Your task to perform on an android device: move a message to another label in the gmail app Image 0: 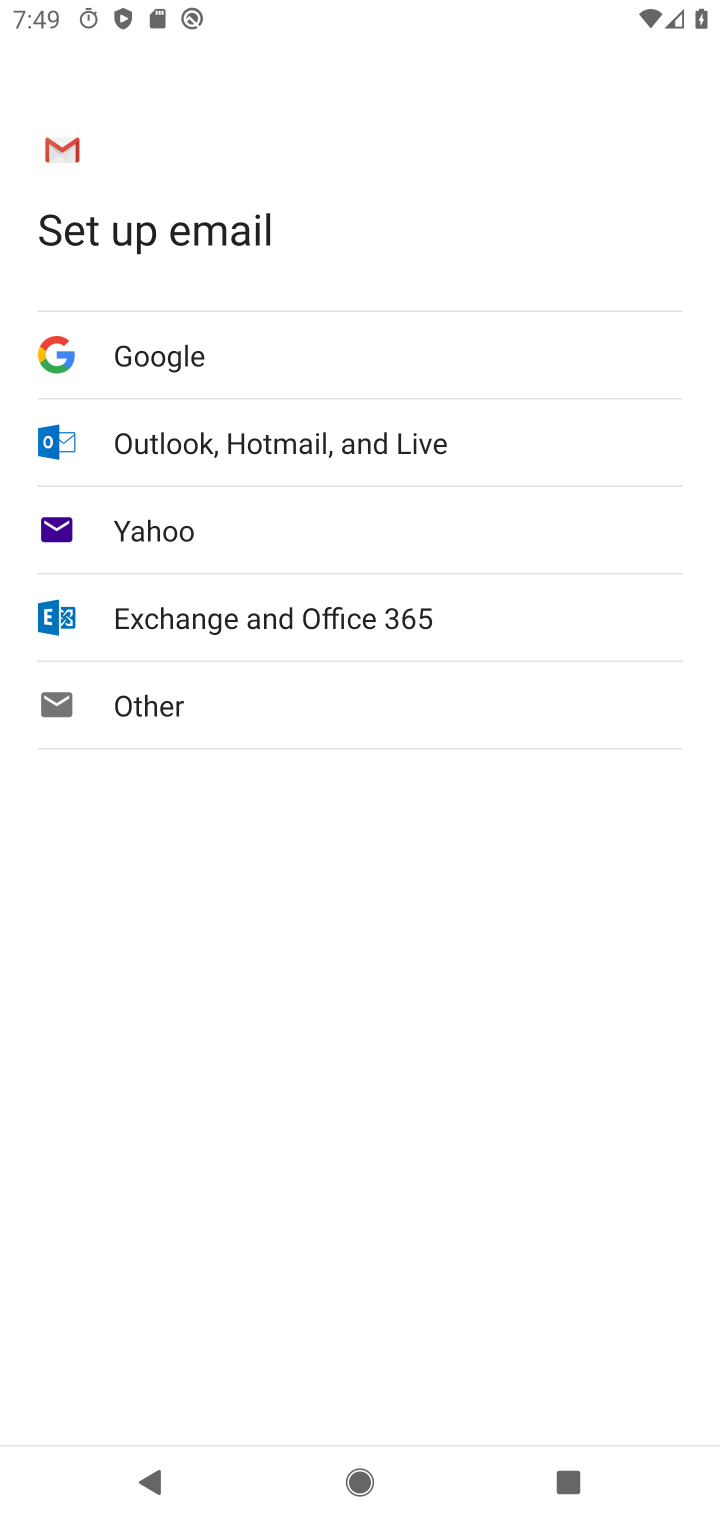
Step 0: drag from (449, 772) to (435, 596)
Your task to perform on an android device: move a message to another label in the gmail app Image 1: 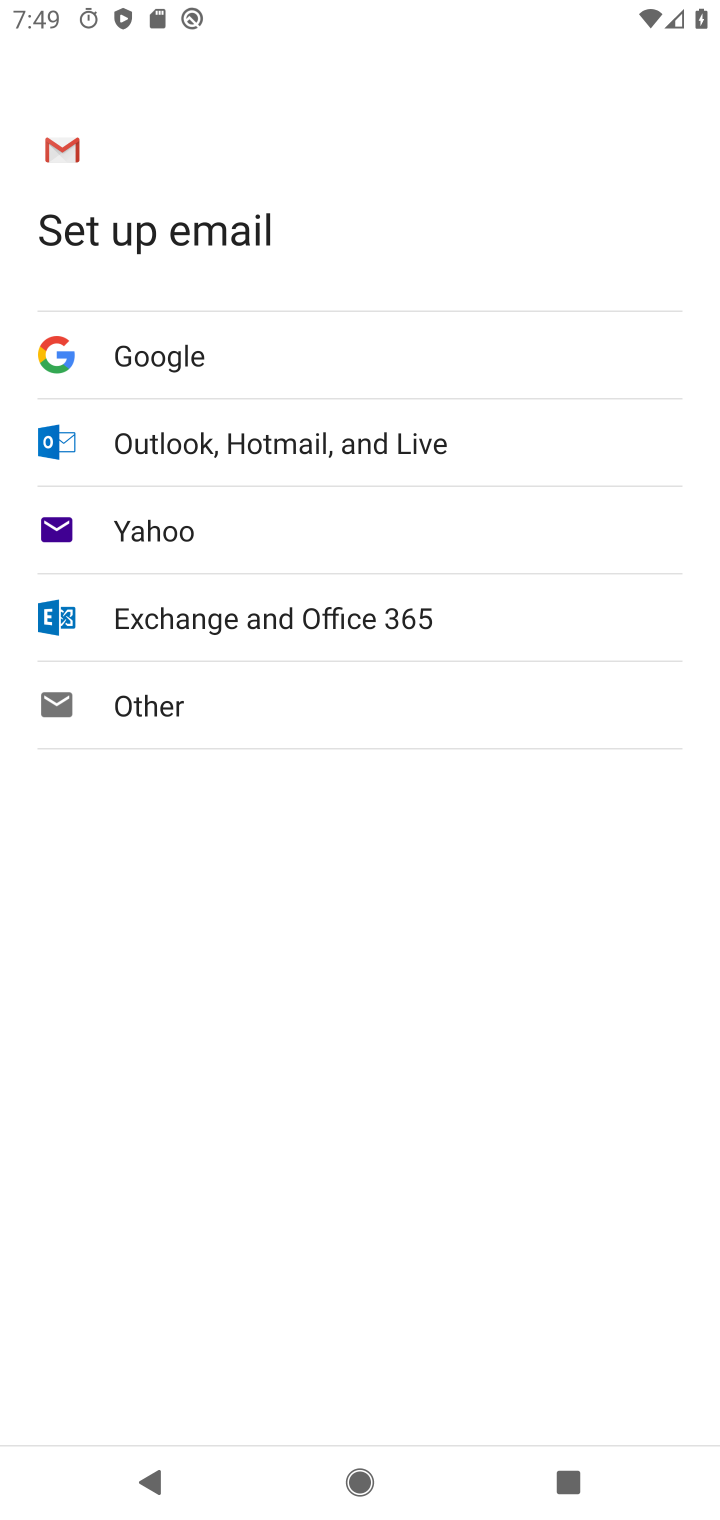
Step 1: drag from (244, 340) to (428, 1240)
Your task to perform on an android device: move a message to another label in the gmail app Image 2: 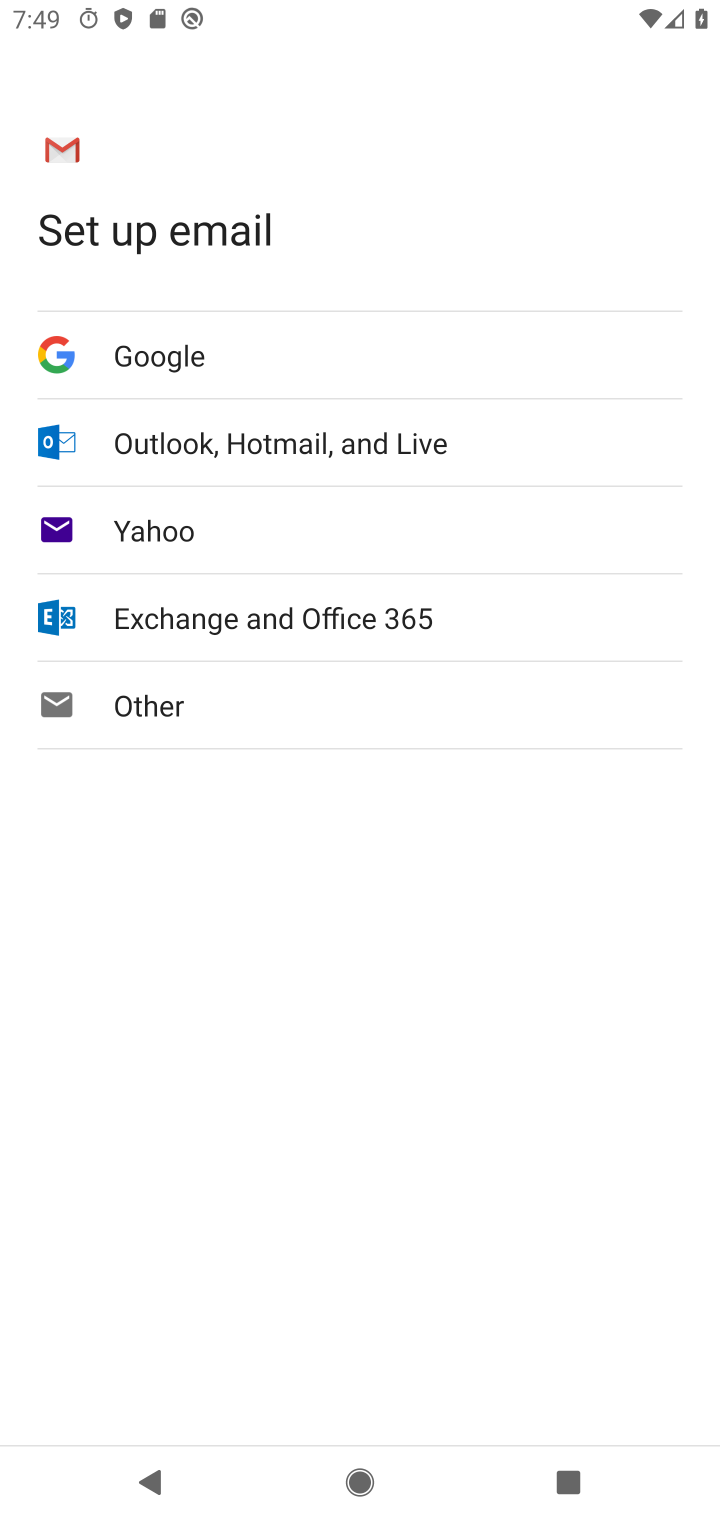
Step 2: press home button
Your task to perform on an android device: move a message to another label in the gmail app Image 3: 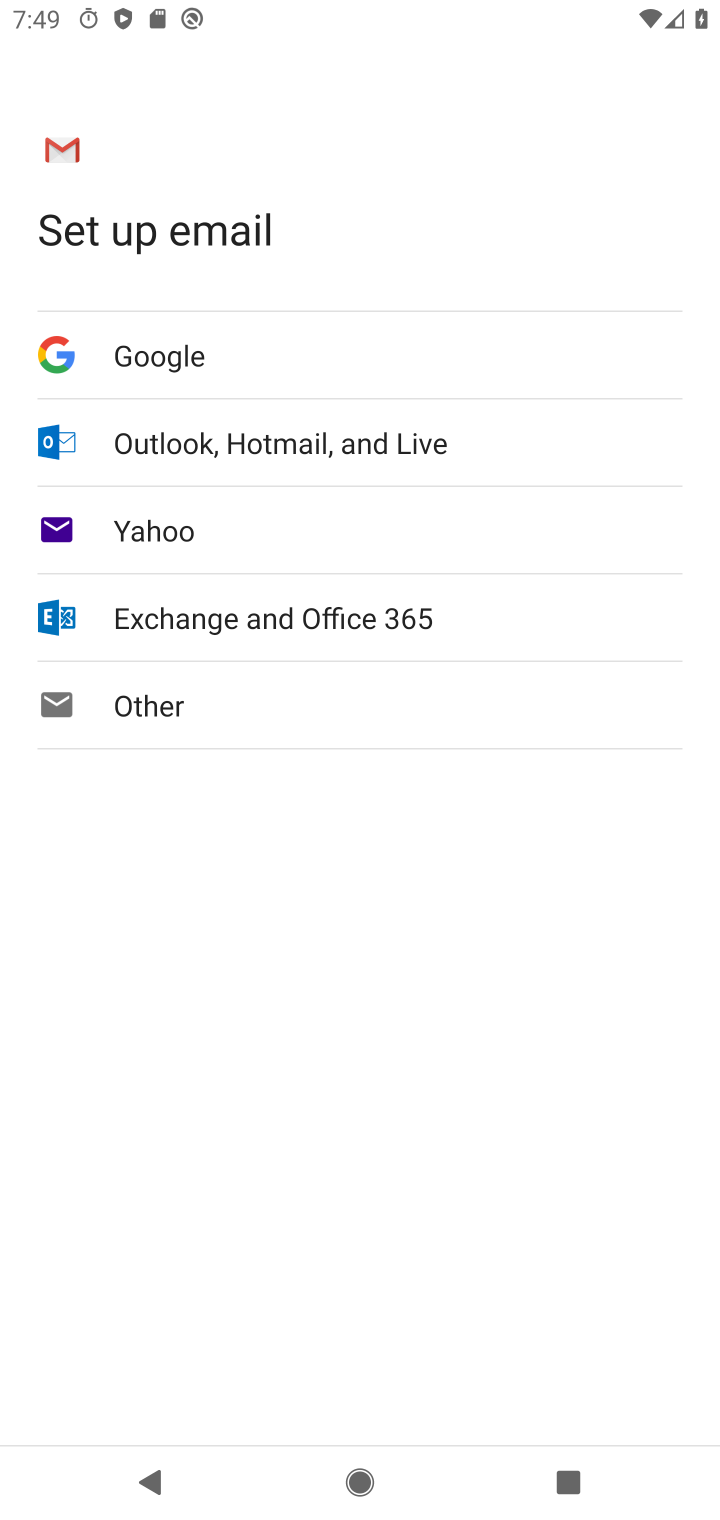
Step 3: drag from (247, 939) to (372, 446)
Your task to perform on an android device: move a message to another label in the gmail app Image 4: 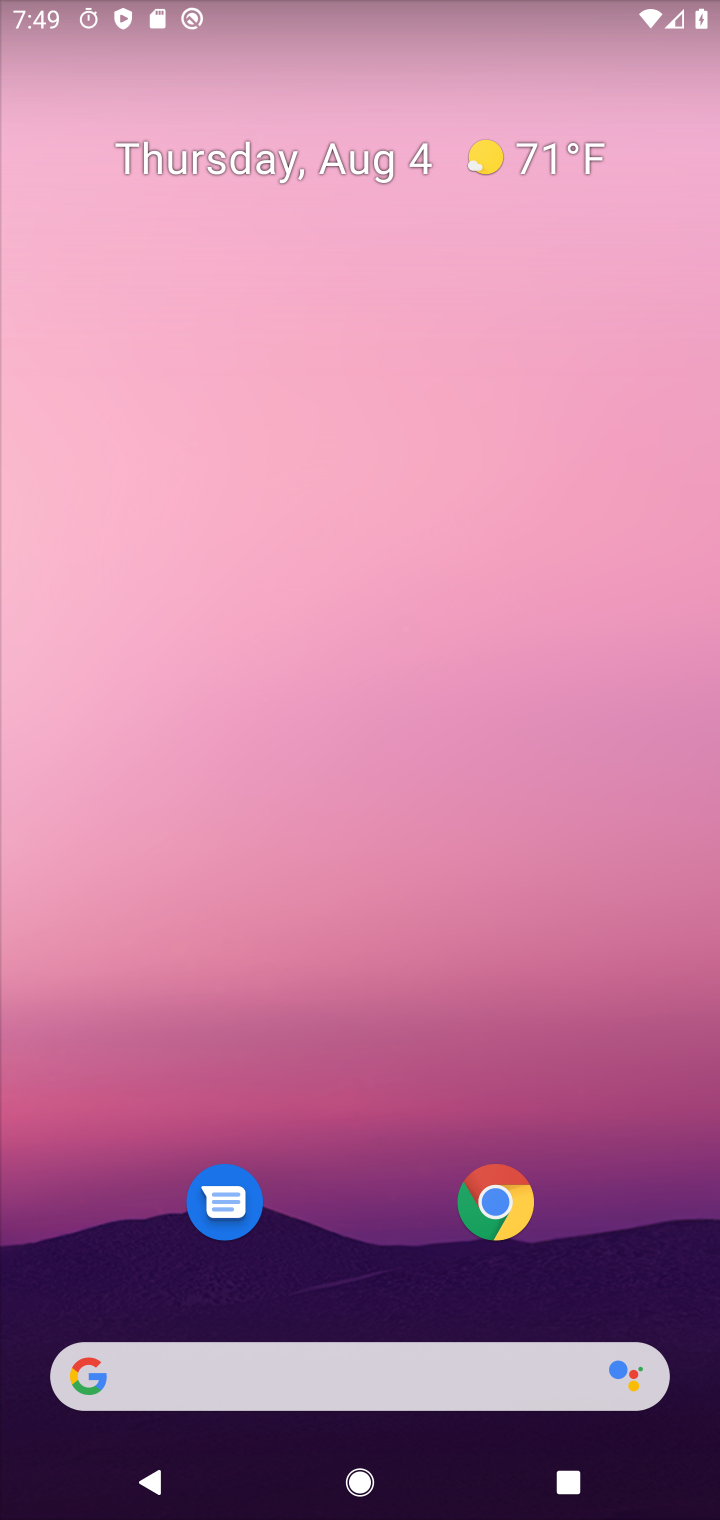
Step 4: drag from (381, 1160) to (466, 185)
Your task to perform on an android device: move a message to another label in the gmail app Image 5: 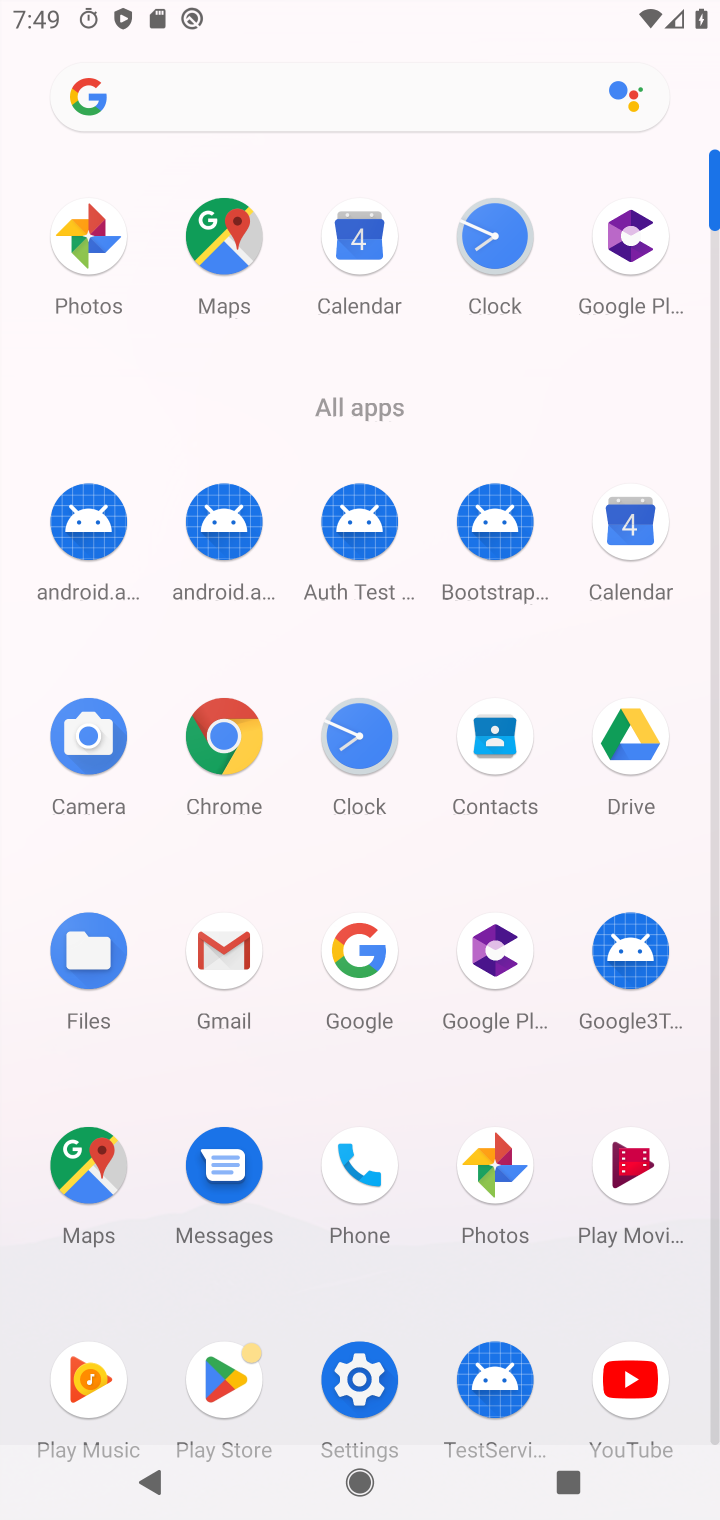
Step 5: click (226, 956)
Your task to perform on an android device: move a message to another label in the gmail app Image 6: 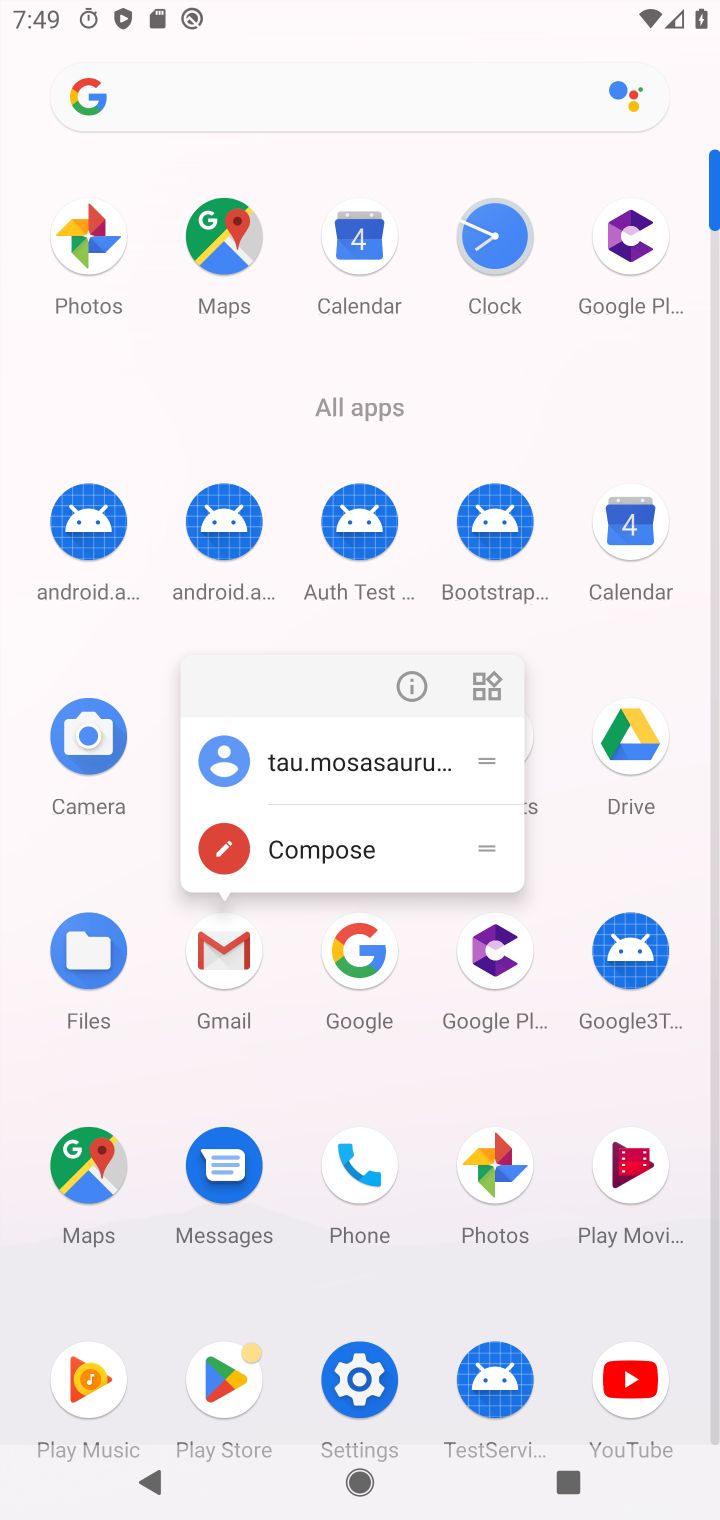
Step 6: click (417, 678)
Your task to perform on an android device: move a message to another label in the gmail app Image 7: 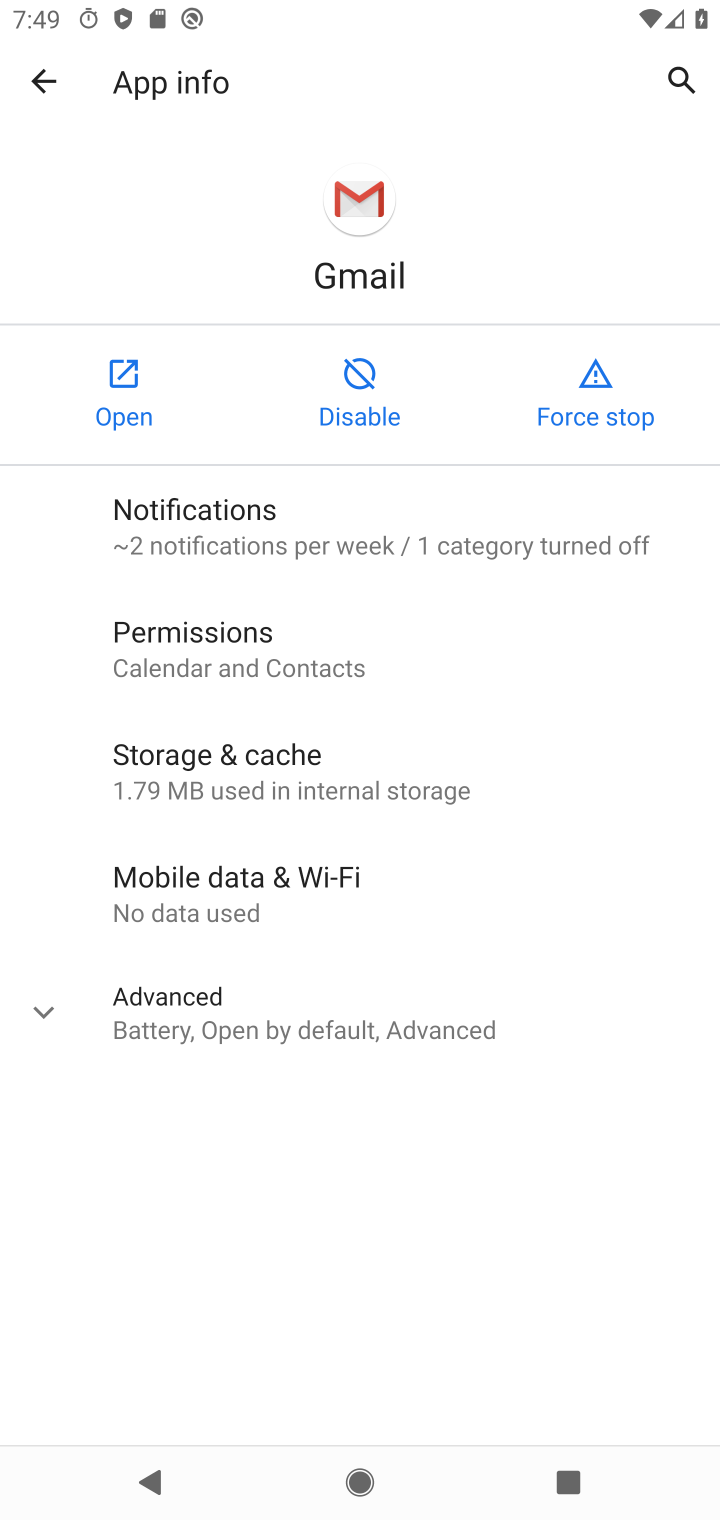
Step 7: click (99, 375)
Your task to perform on an android device: move a message to another label in the gmail app Image 8: 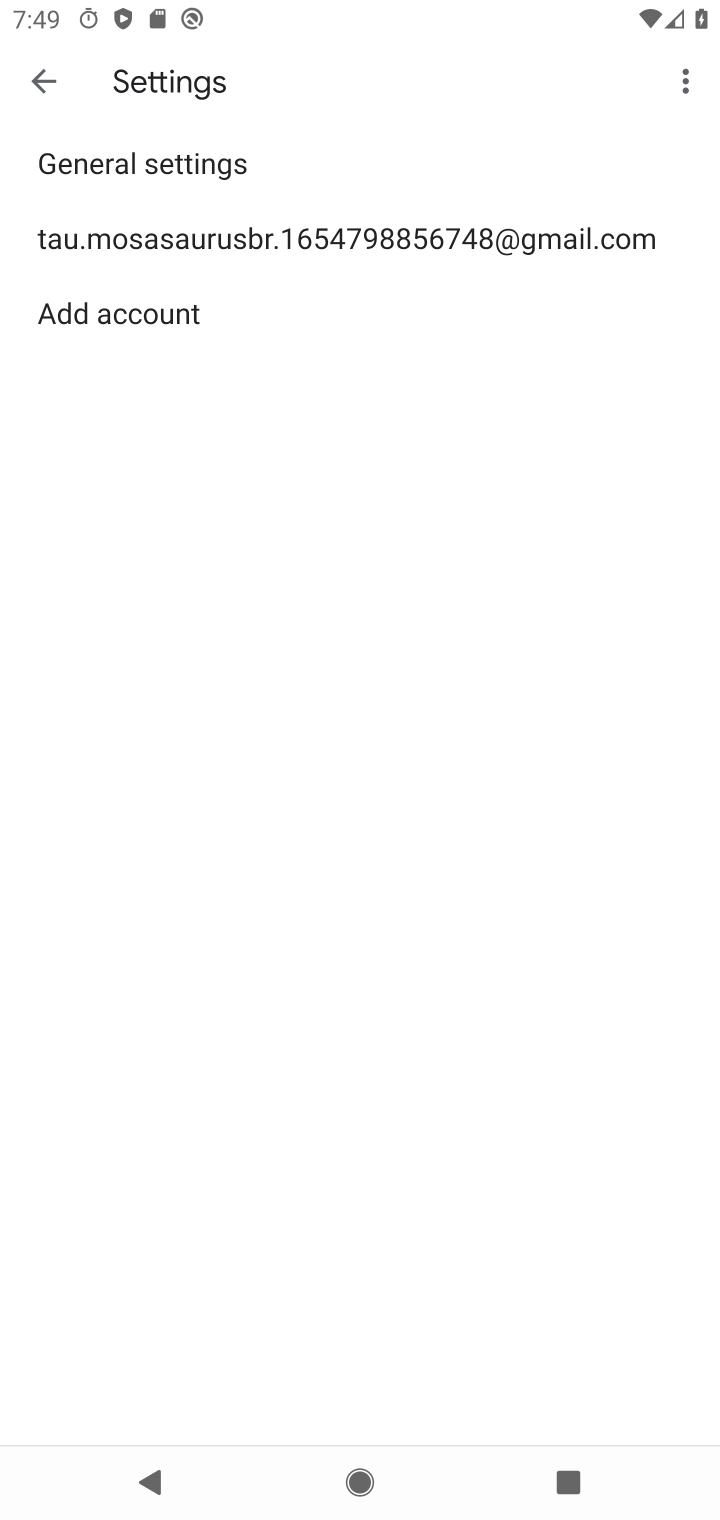
Step 8: click (461, 231)
Your task to perform on an android device: move a message to another label in the gmail app Image 9: 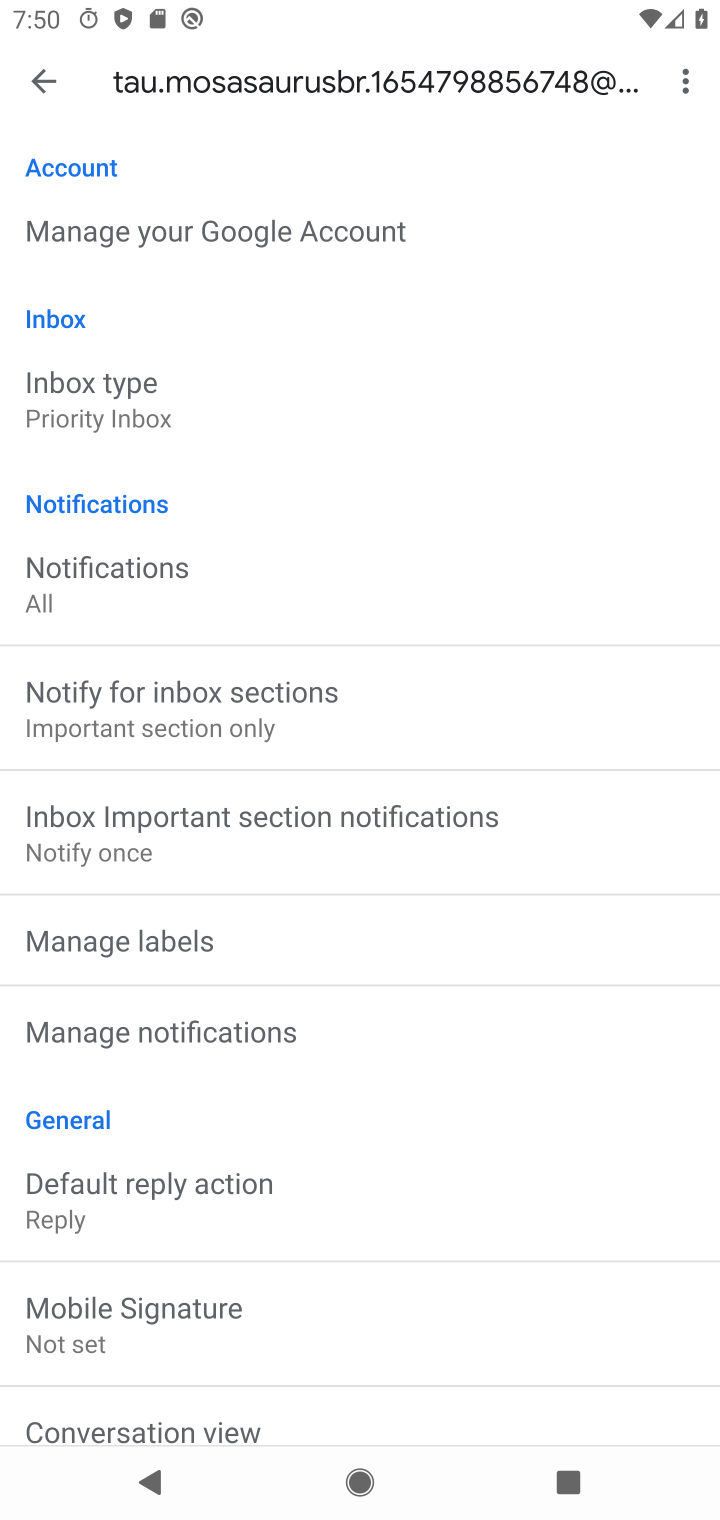
Step 9: click (37, 79)
Your task to perform on an android device: move a message to another label in the gmail app Image 10: 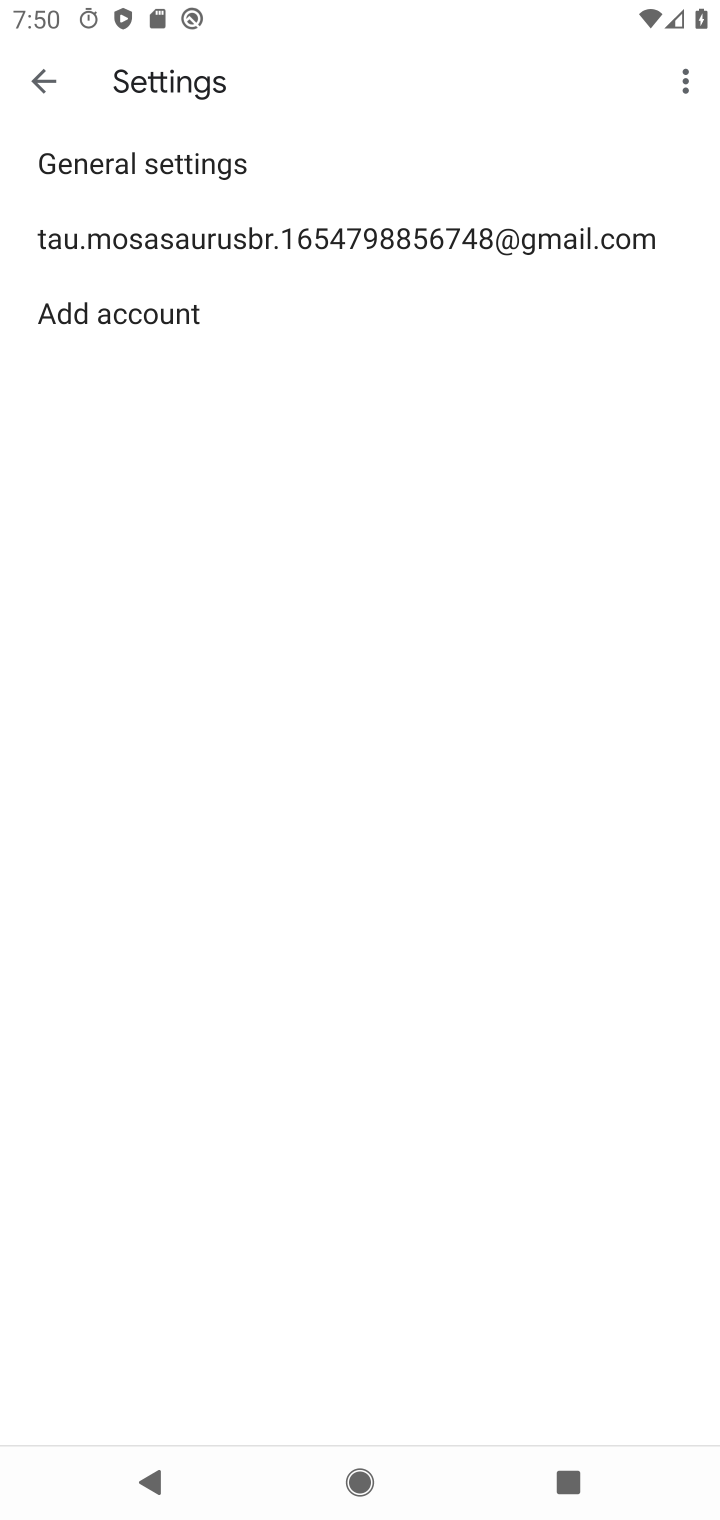
Step 10: click (49, 83)
Your task to perform on an android device: move a message to another label in the gmail app Image 11: 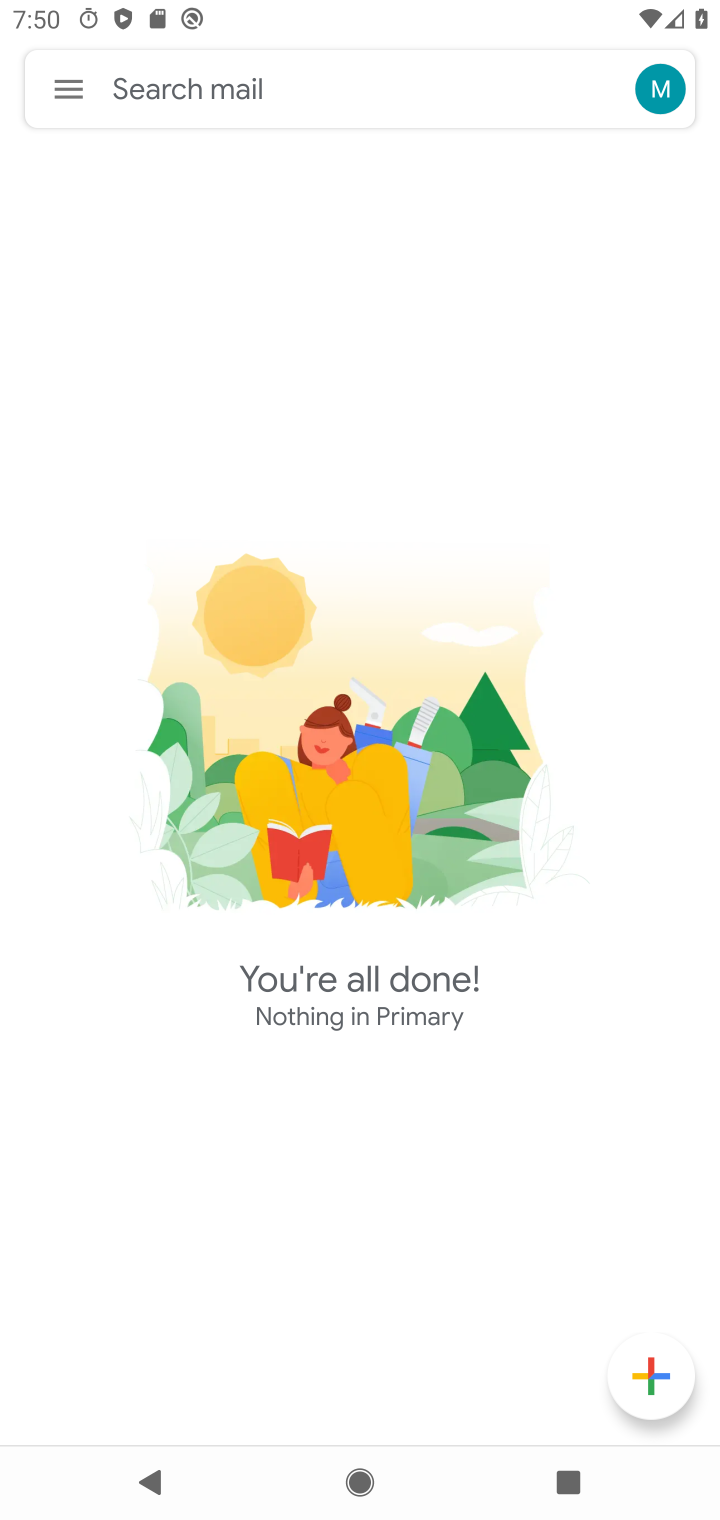
Step 11: drag from (319, 732) to (378, 308)
Your task to perform on an android device: move a message to another label in the gmail app Image 12: 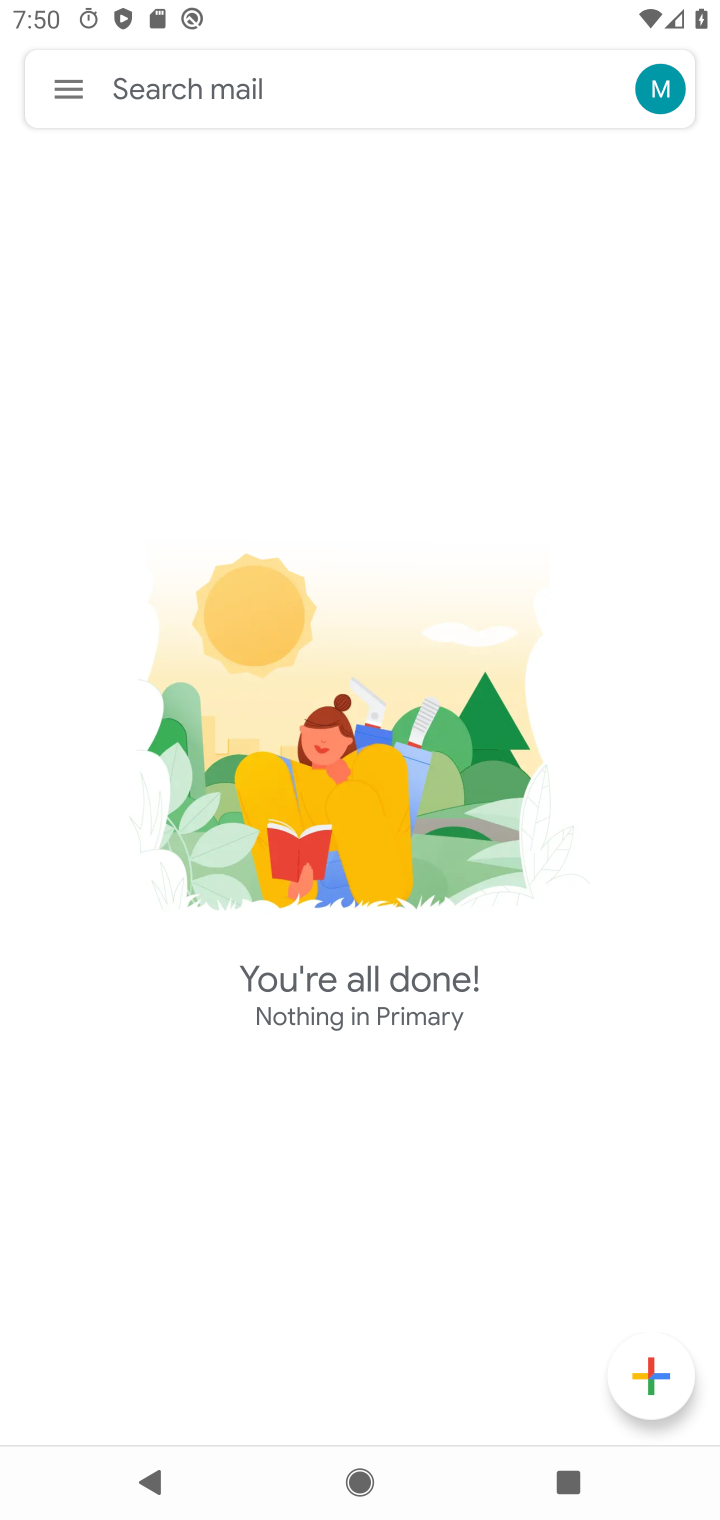
Step 12: drag from (428, 321) to (354, 851)
Your task to perform on an android device: move a message to another label in the gmail app Image 13: 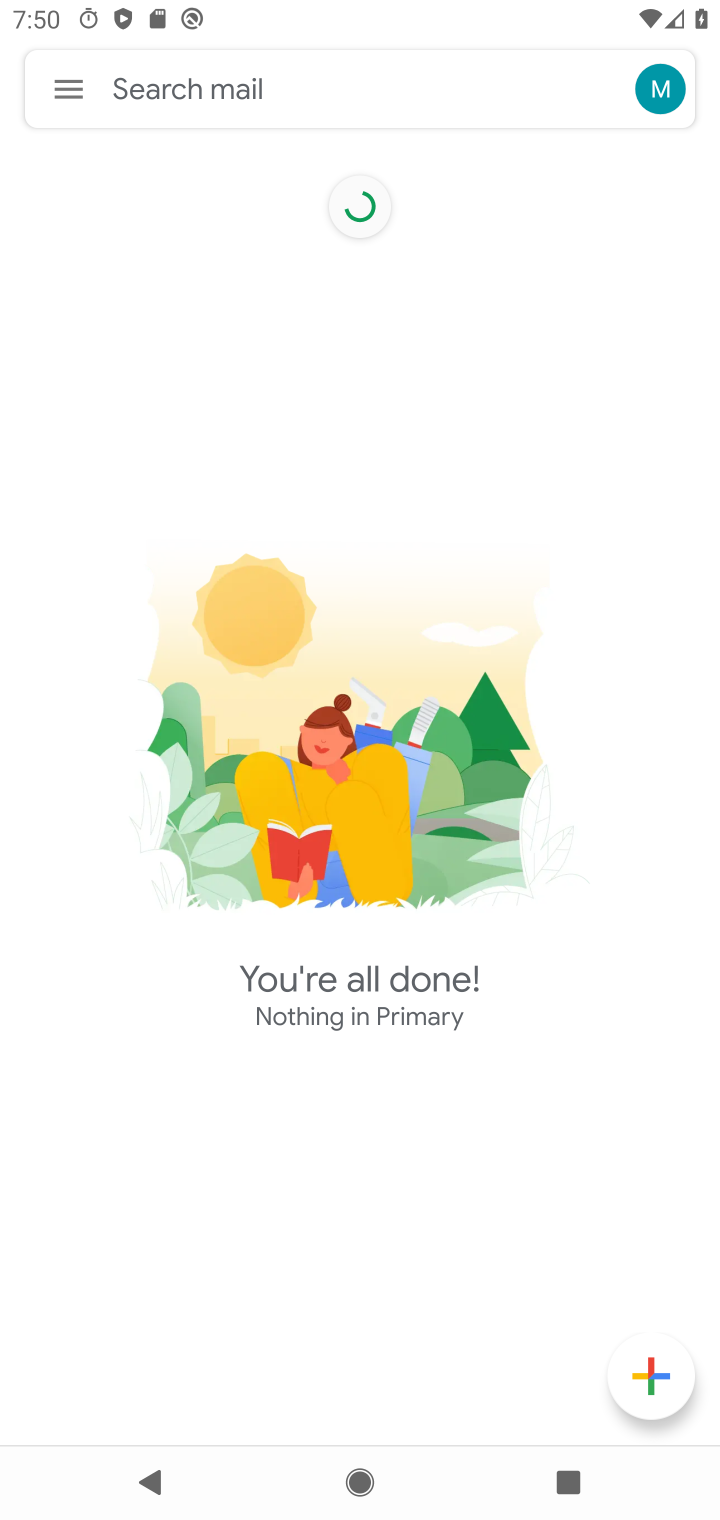
Step 13: click (54, 78)
Your task to perform on an android device: move a message to another label in the gmail app Image 14: 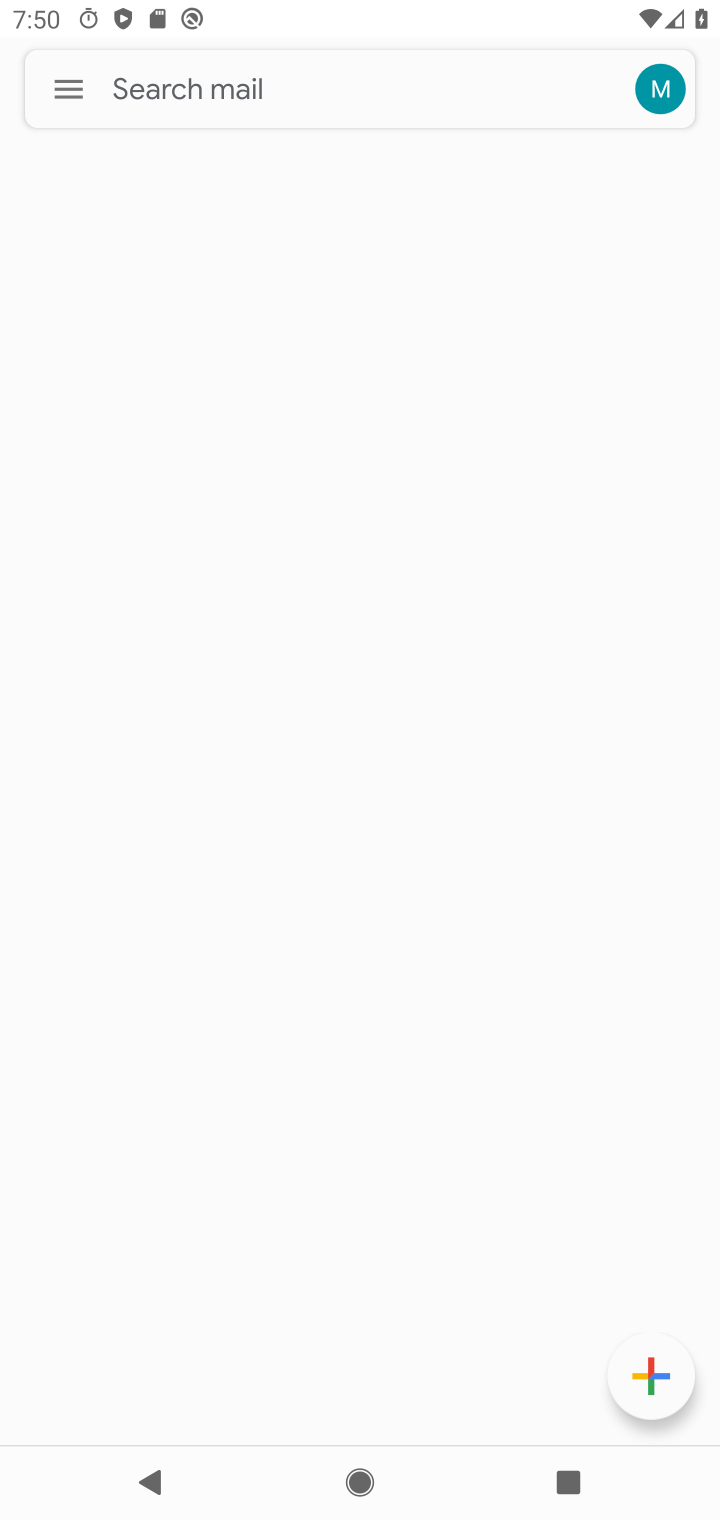
Step 14: click (140, 181)
Your task to perform on an android device: move a message to another label in the gmail app Image 15: 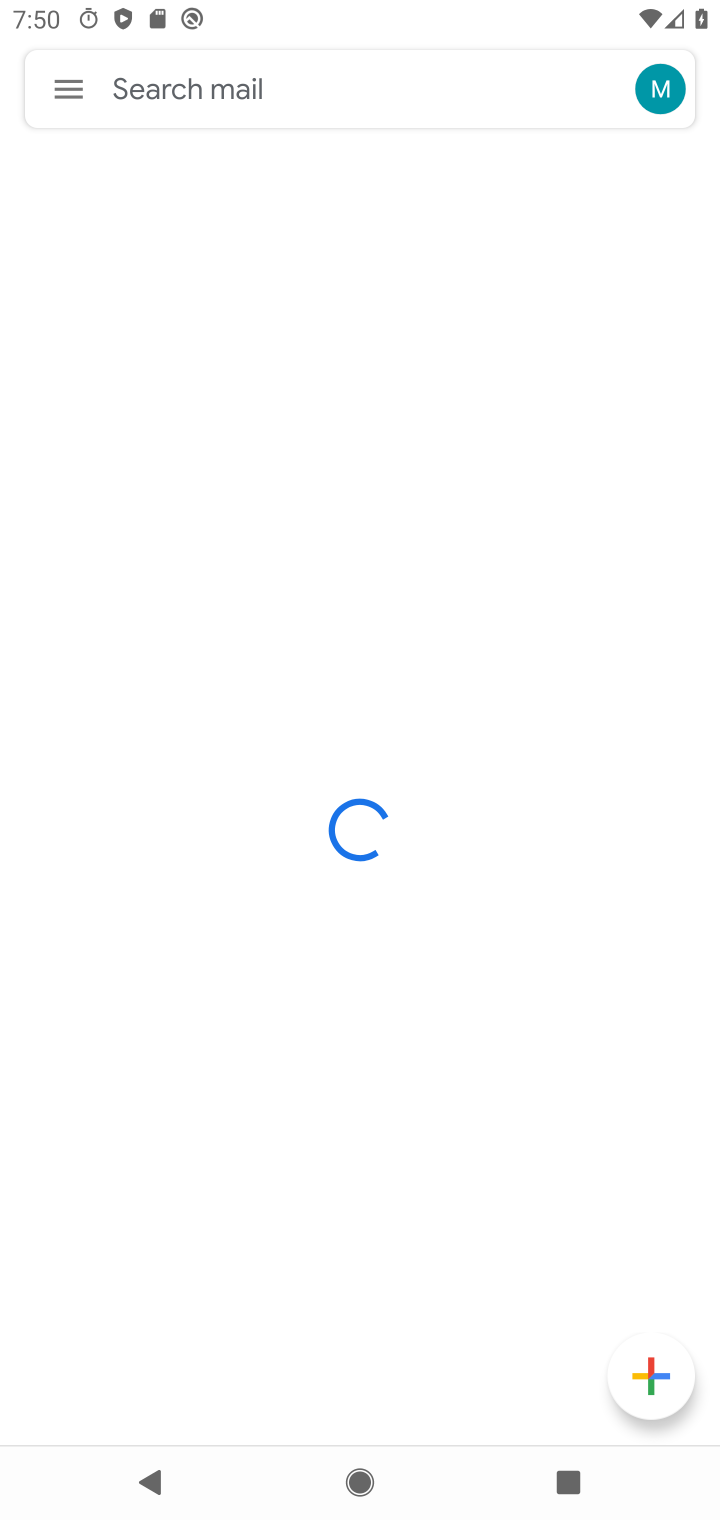
Step 15: click (64, 101)
Your task to perform on an android device: move a message to another label in the gmail app Image 16: 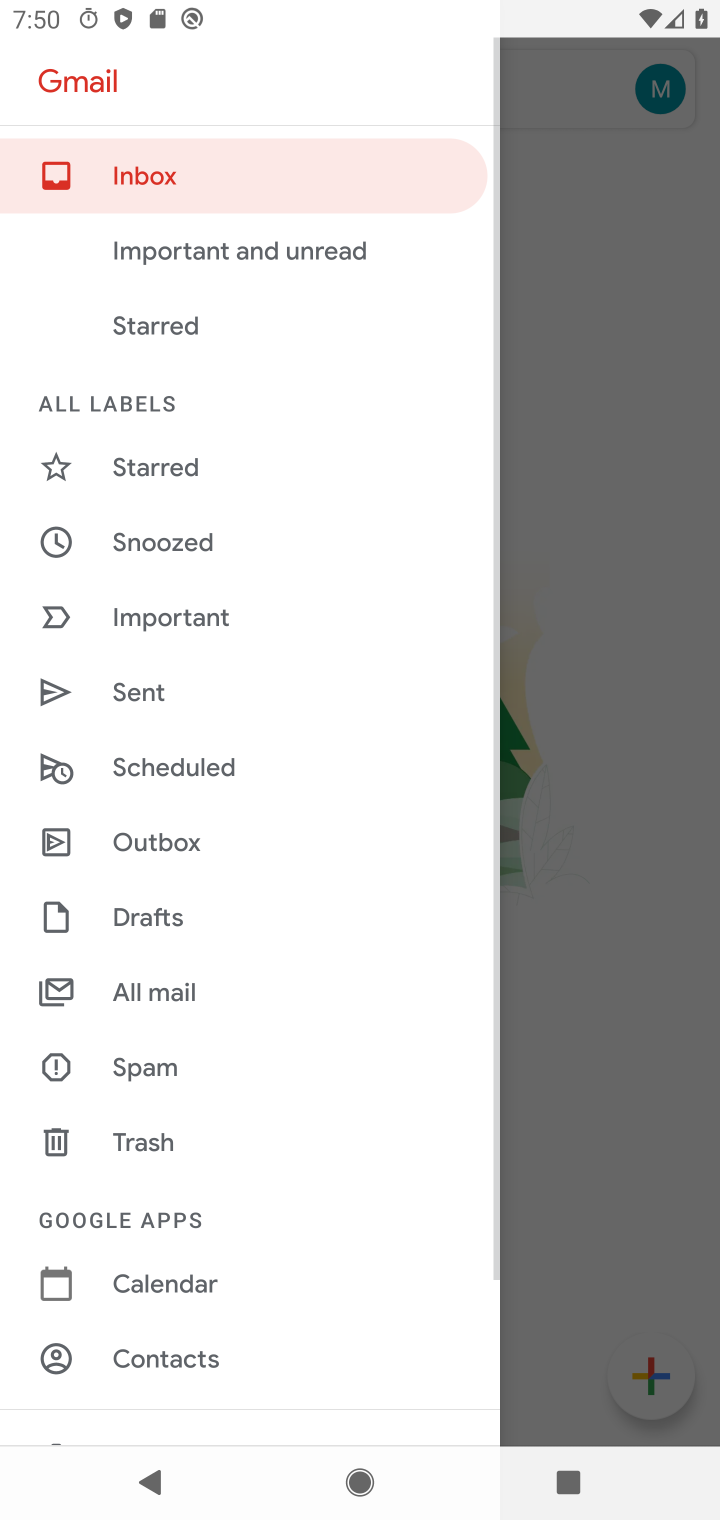
Step 16: click (188, 182)
Your task to perform on an android device: move a message to another label in the gmail app Image 17: 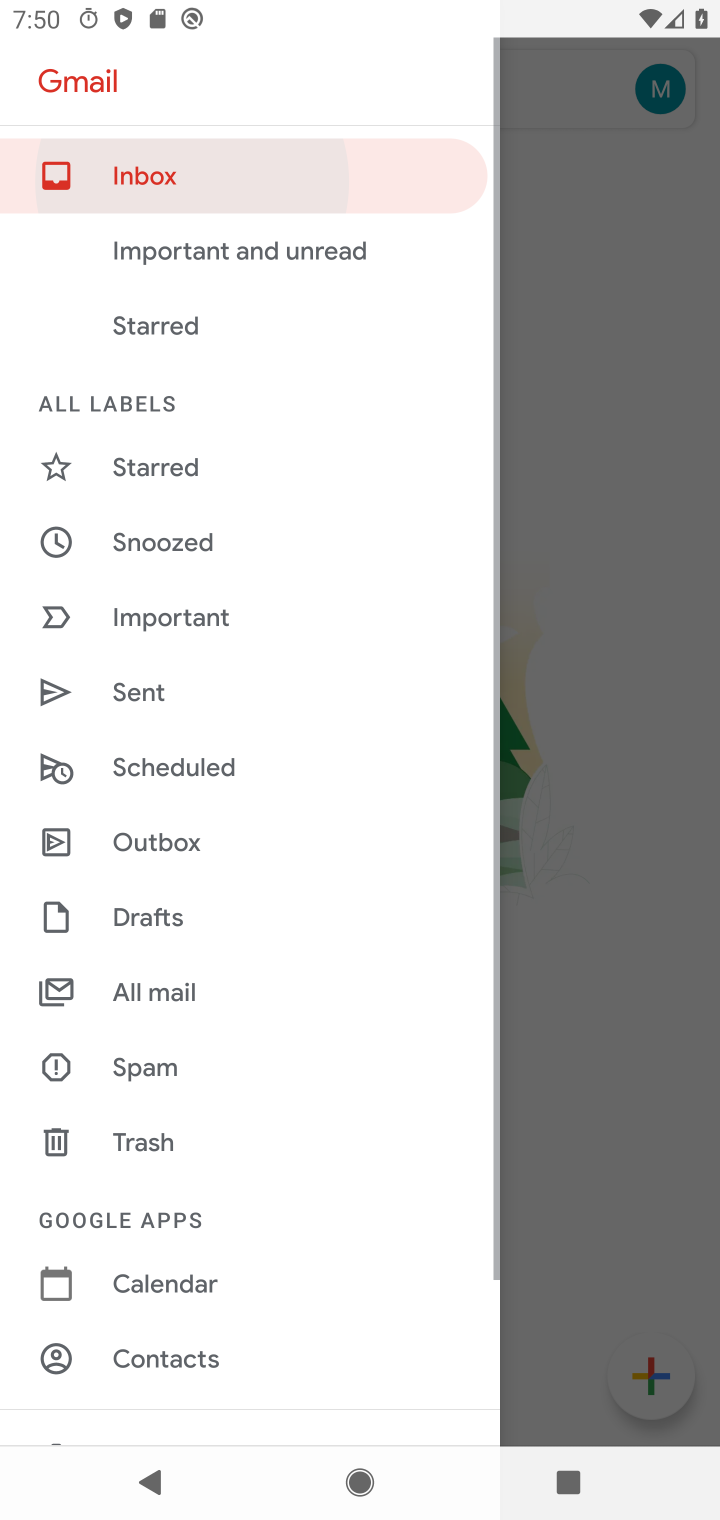
Step 17: click (516, 664)
Your task to perform on an android device: move a message to another label in the gmail app Image 18: 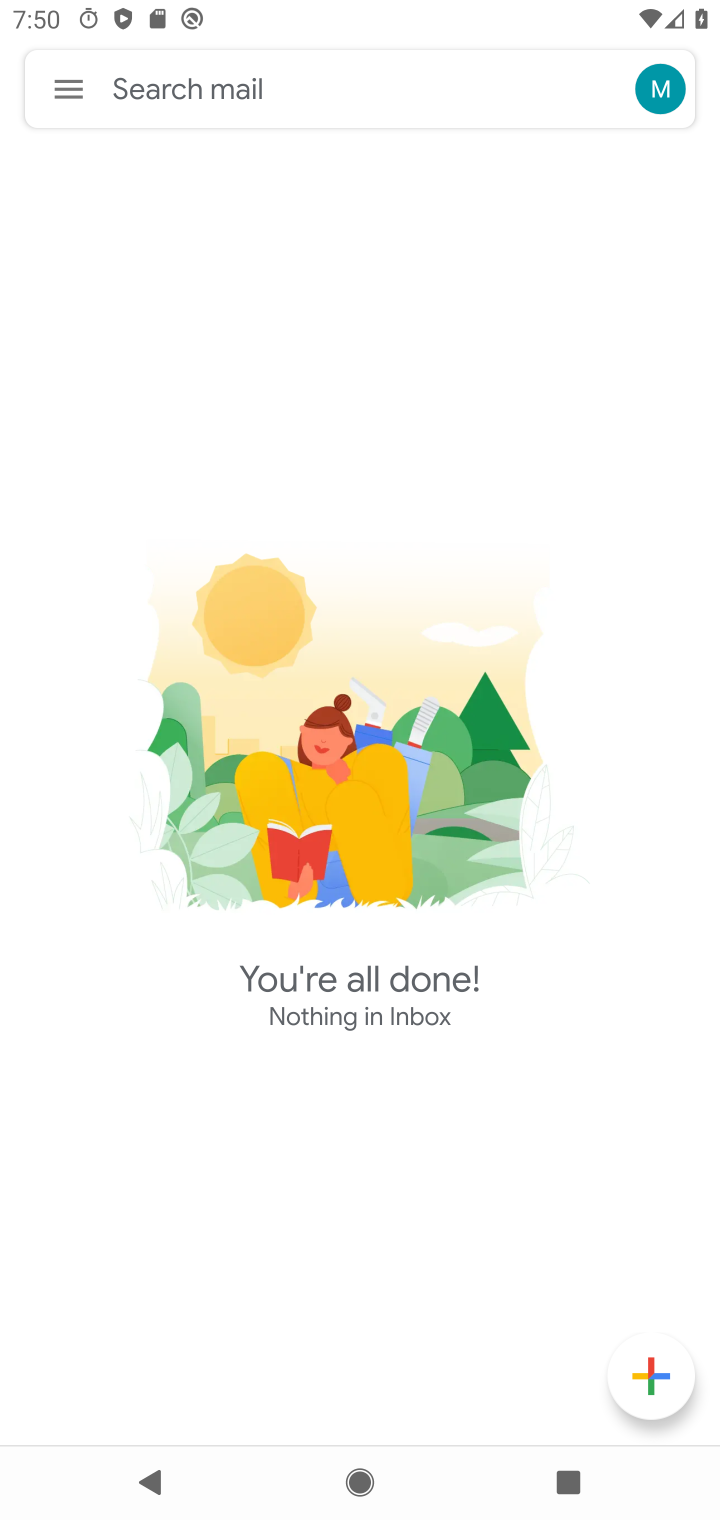
Step 18: task complete